Your task to perform on an android device: toggle show notifications on the lock screen Image 0: 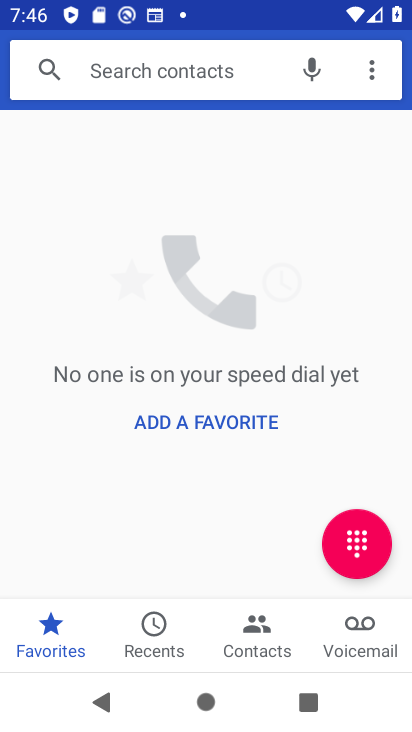
Step 0: press home button
Your task to perform on an android device: toggle show notifications on the lock screen Image 1: 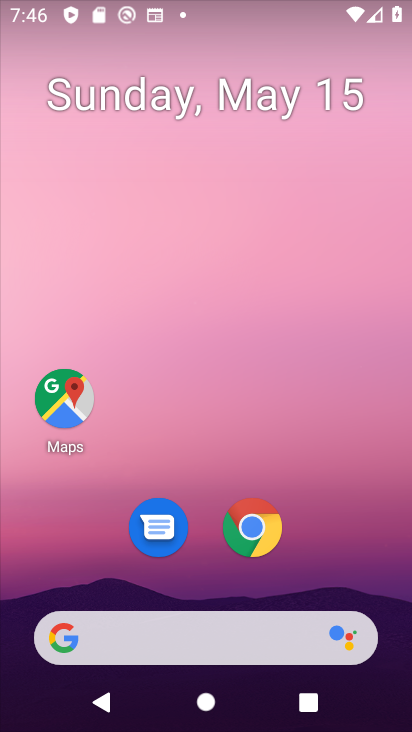
Step 1: drag from (150, 644) to (328, 128)
Your task to perform on an android device: toggle show notifications on the lock screen Image 2: 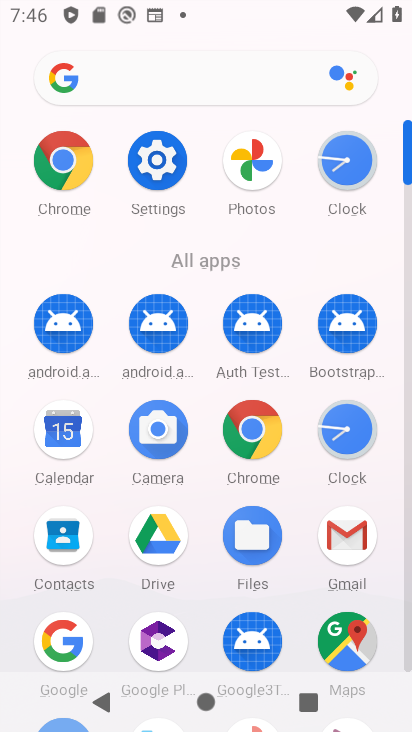
Step 2: click (168, 168)
Your task to perform on an android device: toggle show notifications on the lock screen Image 3: 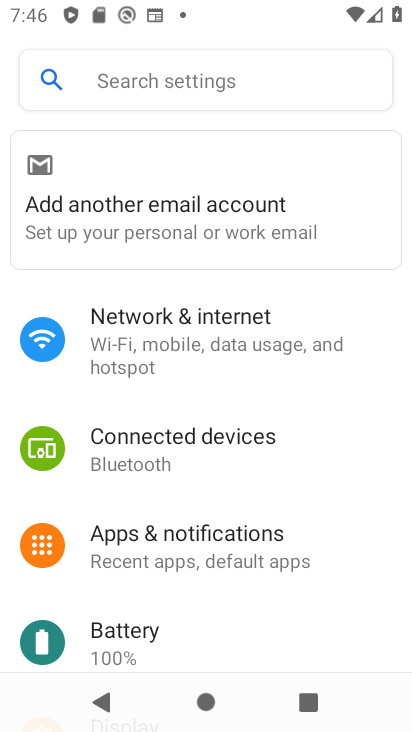
Step 3: drag from (217, 620) to (381, 178)
Your task to perform on an android device: toggle show notifications on the lock screen Image 4: 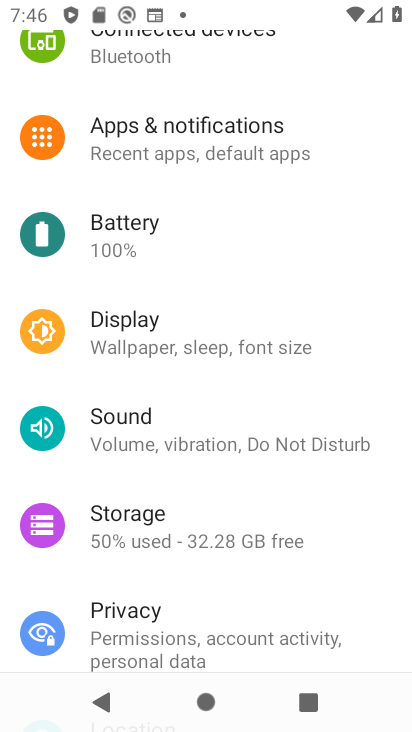
Step 4: click (231, 136)
Your task to perform on an android device: toggle show notifications on the lock screen Image 5: 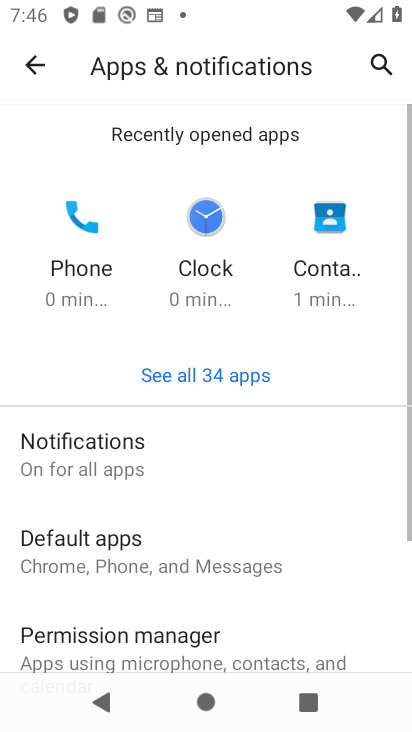
Step 5: click (69, 453)
Your task to perform on an android device: toggle show notifications on the lock screen Image 6: 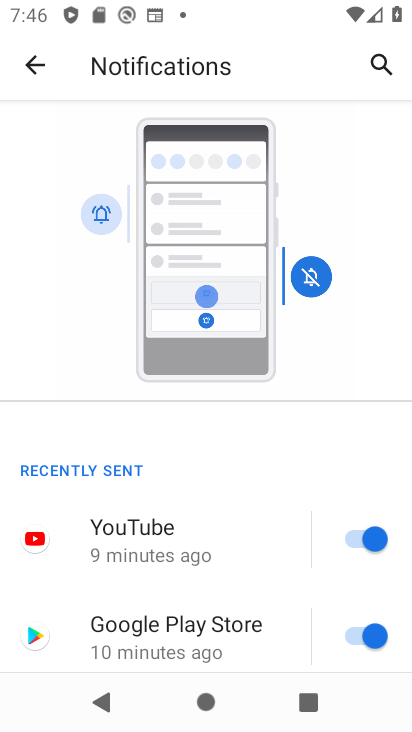
Step 6: drag from (326, 163) to (341, 130)
Your task to perform on an android device: toggle show notifications on the lock screen Image 7: 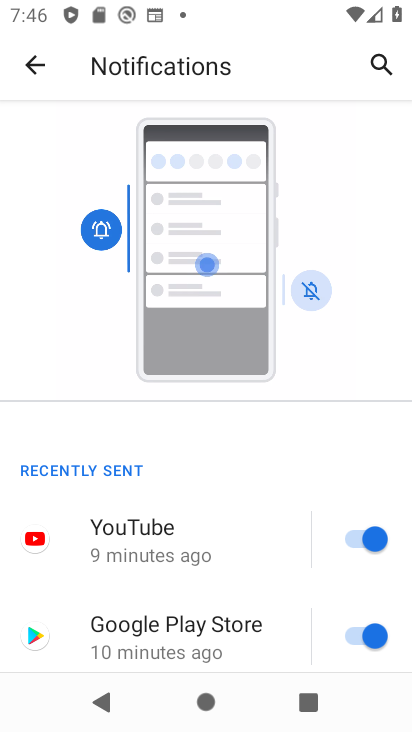
Step 7: drag from (277, 587) to (392, 41)
Your task to perform on an android device: toggle show notifications on the lock screen Image 8: 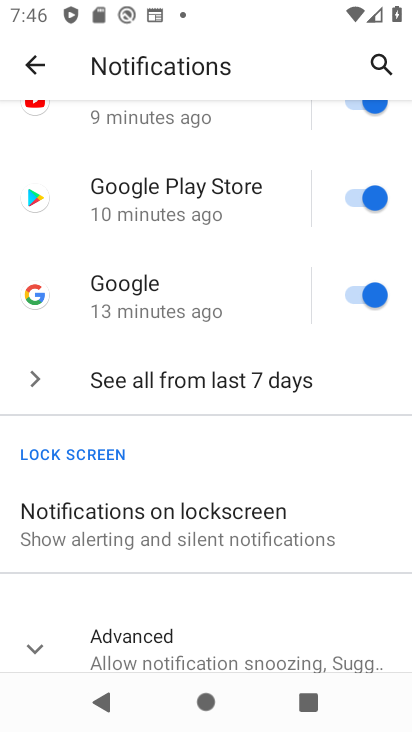
Step 8: click (198, 493)
Your task to perform on an android device: toggle show notifications on the lock screen Image 9: 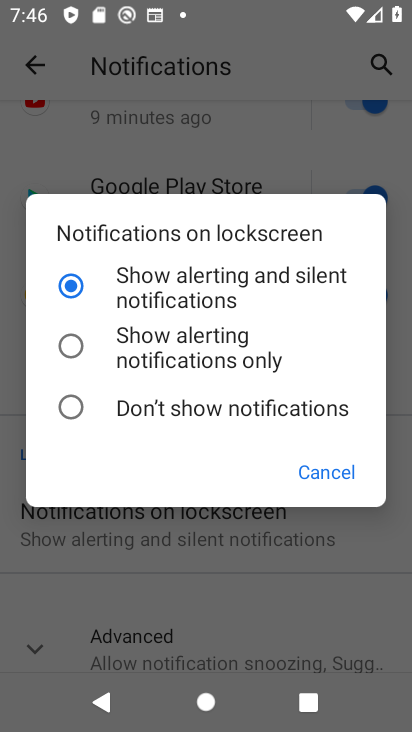
Step 9: click (77, 407)
Your task to perform on an android device: toggle show notifications on the lock screen Image 10: 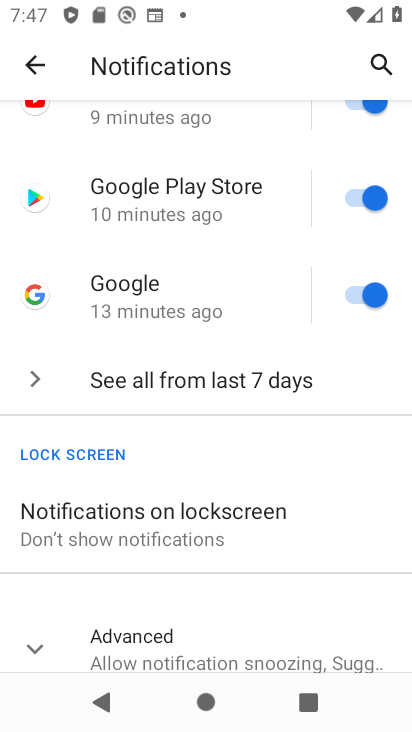
Step 10: task complete